Your task to perform on an android device: What's on my calendar tomorrow? Image 0: 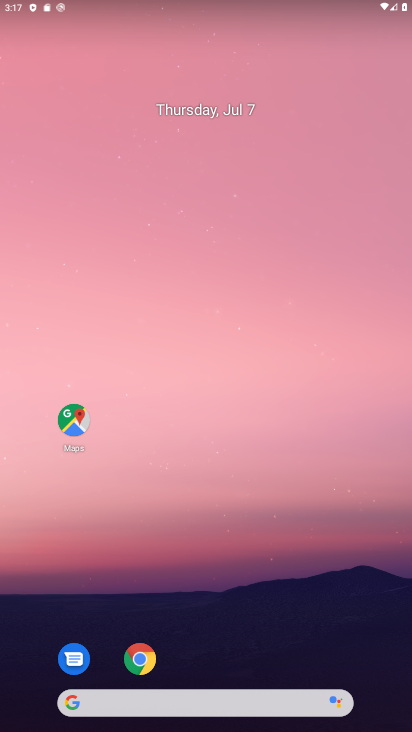
Step 0: press home button
Your task to perform on an android device: What's on my calendar tomorrow? Image 1: 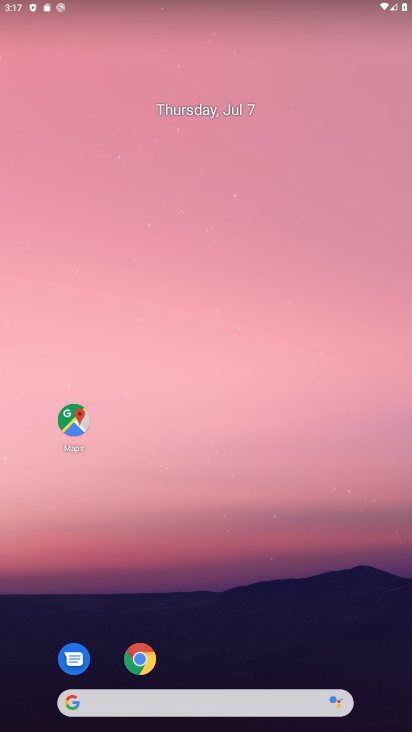
Step 1: drag from (208, 699) to (245, 40)
Your task to perform on an android device: What's on my calendar tomorrow? Image 2: 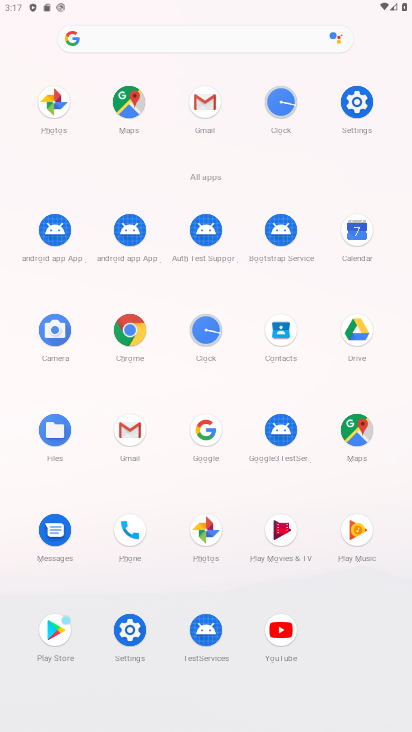
Step 2: click (356, 237)
Your task to perform on an android device: What's on my calendar tomorrow? Image 3: 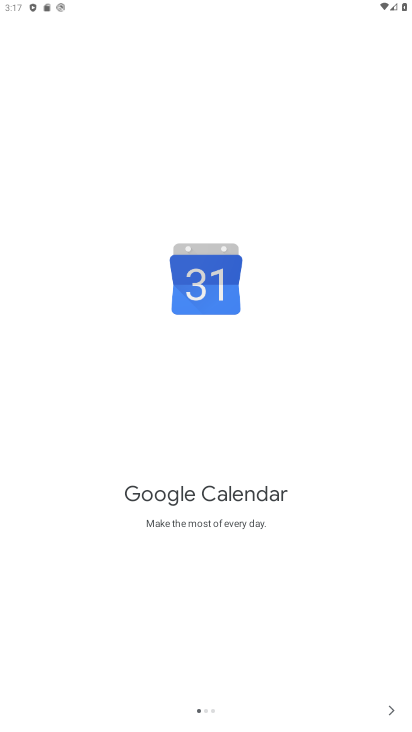
Step 3: click (392, 711)
Your task to perform on an android device: What's on my calendar tomorrow? Image 4: 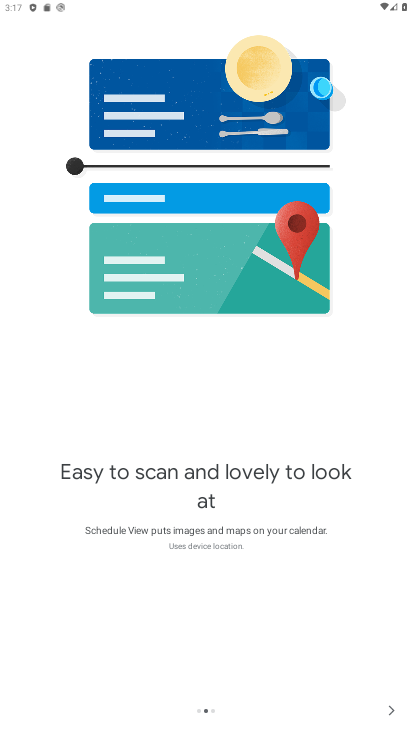
Step 4: click (389, 713)
Your task to perform on an android device: What's on my calendar tomorrow? Image 5: 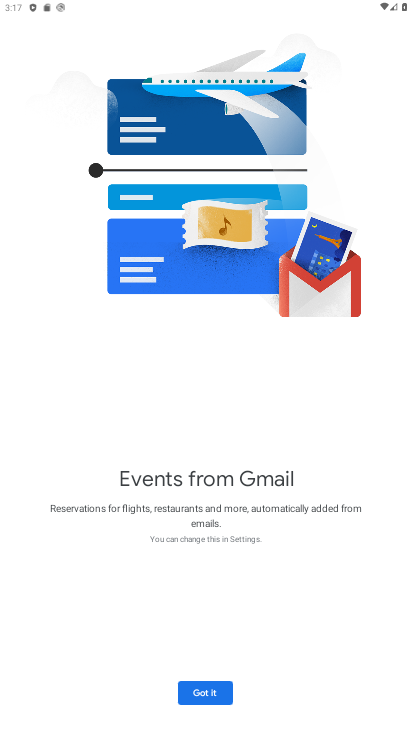
Step 5: click (195, 698)
Your task to perform on an android device: What's on my calendar tomorrow? Image 6: 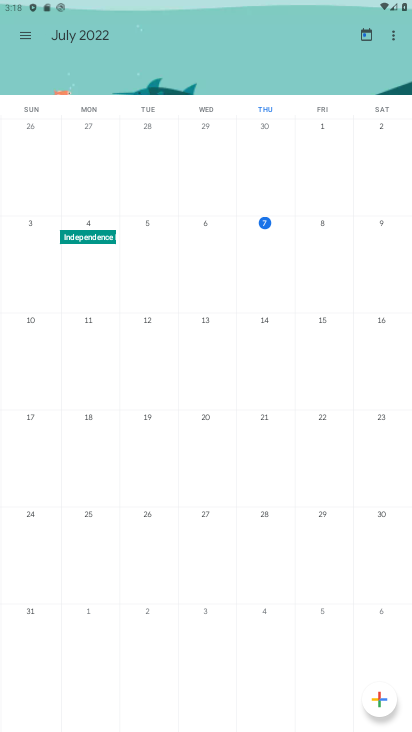
Step 6: click (331, 222)
Your task to perform on an android device: What's on my calendar tomorrow? Image 7: 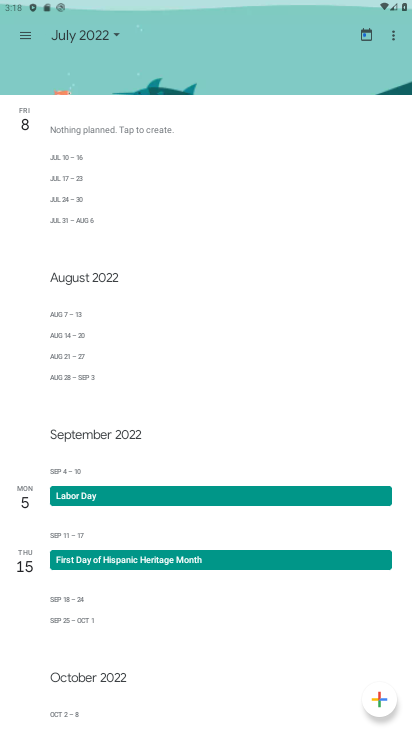
Step 7: task complete